Your task to perform on an android device: Do I have any events tomorrow? Image 0: 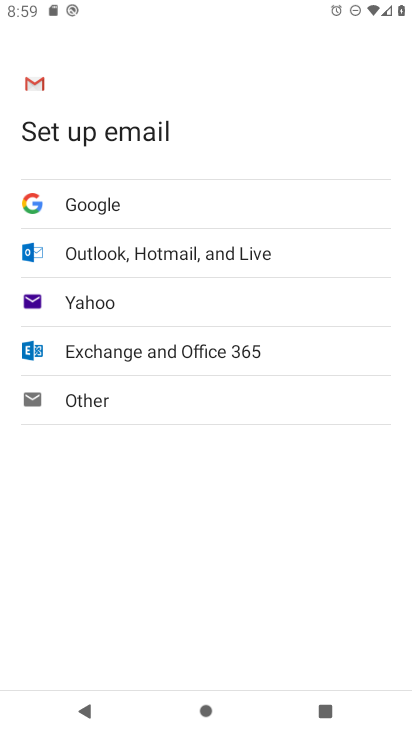
Step 0: press home button
Your task to perform on an android device: Do I have any events tomorrow? Image 1: 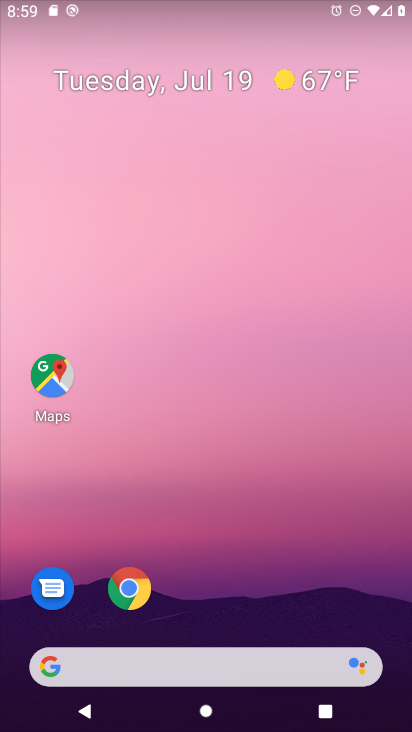
Step 1: drag from (301, 559) to (358, 75)
Your task to perform on an android device: Do I have any events tomorrow? Image 2: 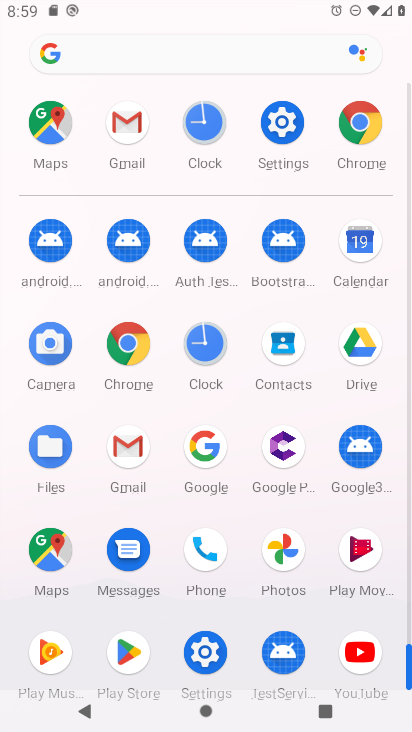
Step 2: click (355, 265)
Your task to perform on an android device: Do I have any events tomorrow? Image 3: 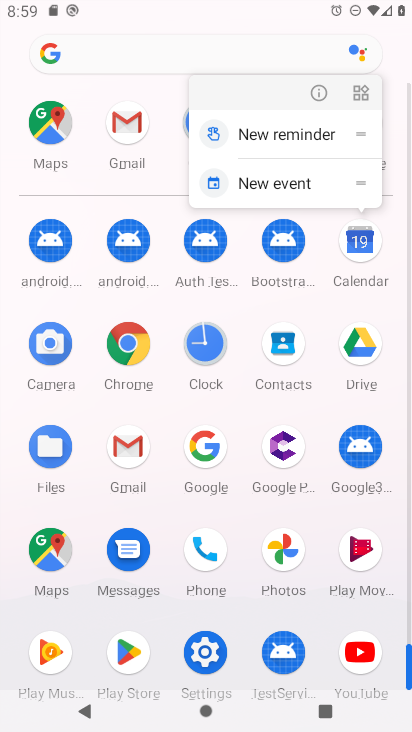
Step 3: click (355, 265)
Your task to perform on an android device: Do I have any events tomorrow? Image 4: 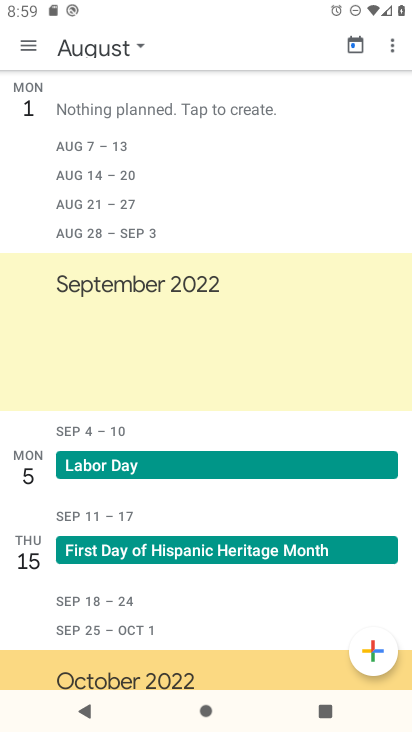
Step 4: drag from (238, 166) to (250, 370)
Your task to perform on an android device: Do I have any events tomorrow? Image 5: 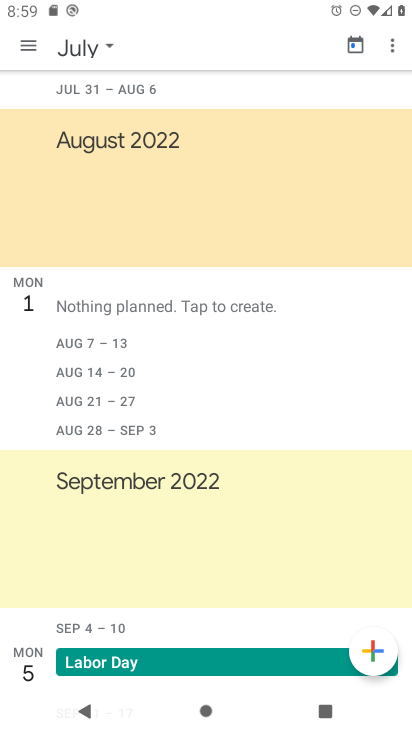
Step 5: drag from (223, 175) to (218, 391)
Your task to perform on an android device: Do I have any events tomorrow? Image 6: 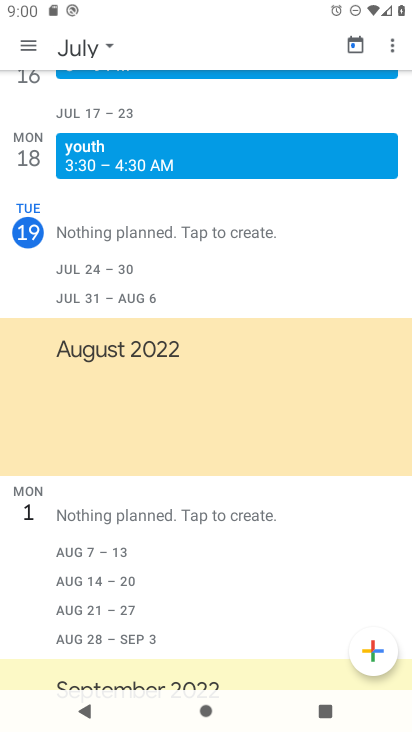
Step 6: click (103, 43)
Your task to perform on an android device: Do I have any events tomorrow? Image 7: 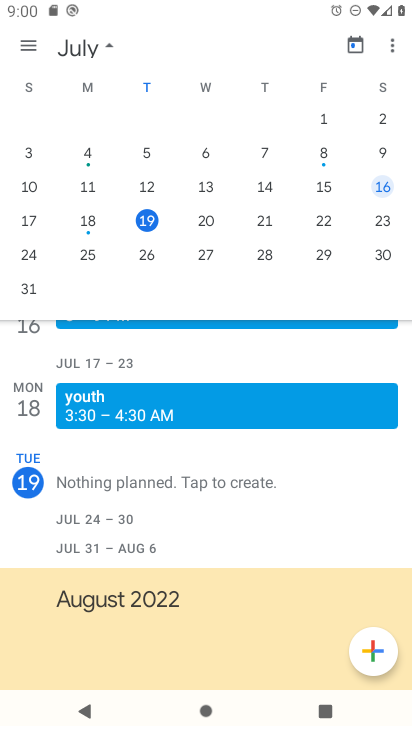
Step 7: click (267, 216)
Your task to perform on an android device: Do I have any events tomorrow? Image 8: 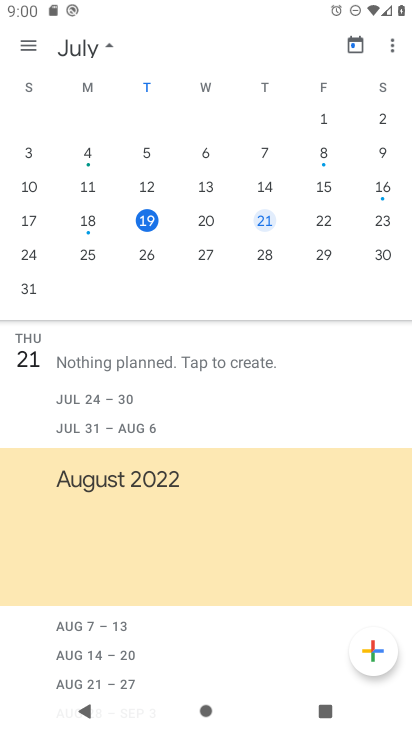
Step 8: task complete